Your task to perform on an android device: Search for vegetarian restaurants on Maps Image 0: 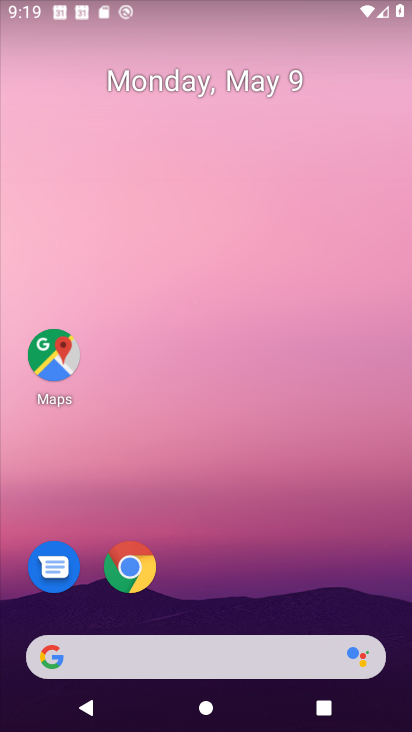
Step 0: click (281, 98)
Your task to perform on an android device: Search for vegetarian restaurants on Maps Image 1: 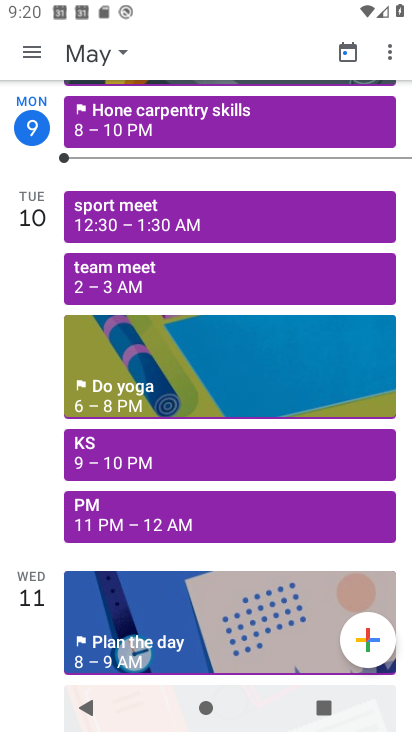
Step 1: press home button
Your task to perform on an android device: Search for vegetarian restaurants on Maps Image 2: 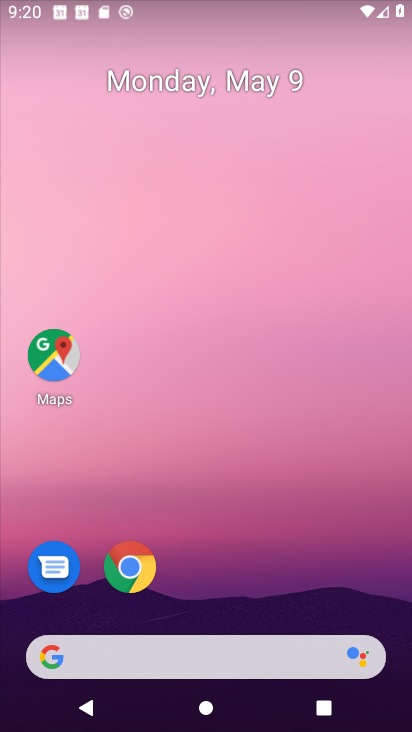
Step 2: drag from (392, 233) to (412, 0)
Your task to perform on an android device: Search for vegetarian restaurants on Maps Image 3: 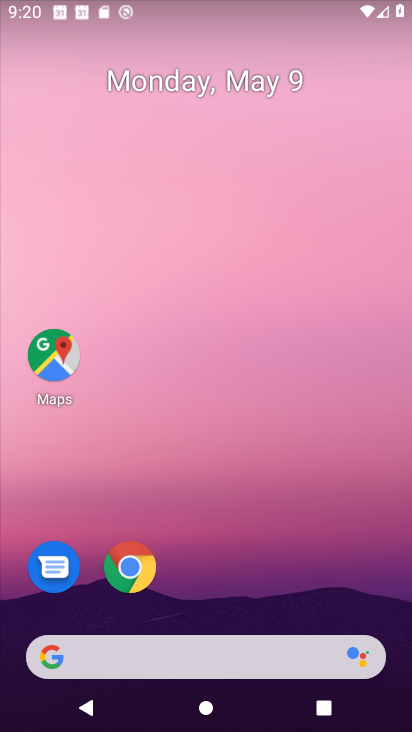
Step 3: drag from (189, 238) to (210, 195)
Your task to perform on an android device: Search for vegetarian restaurants on Maps Image 4: 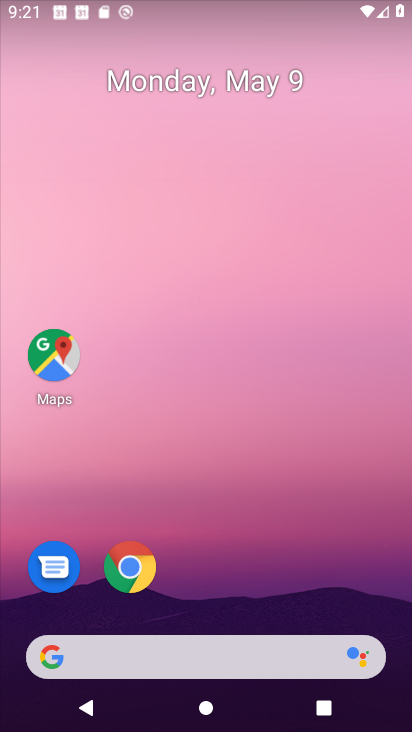
Step 4: drag from (170, 607) to (147, 204)
Your task to perform on an android device: Search for vegetarian restaurants on Maps Image 5: 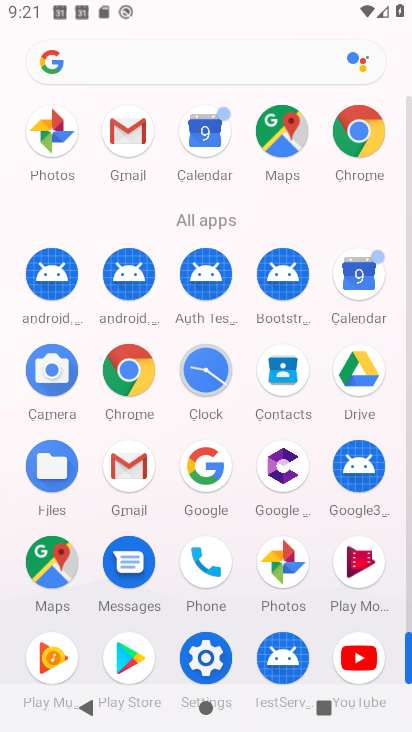
Step 5: click (44, 553)
Your task to perform on an android device: Search for vegetarian restaurants on Maps Image 6: 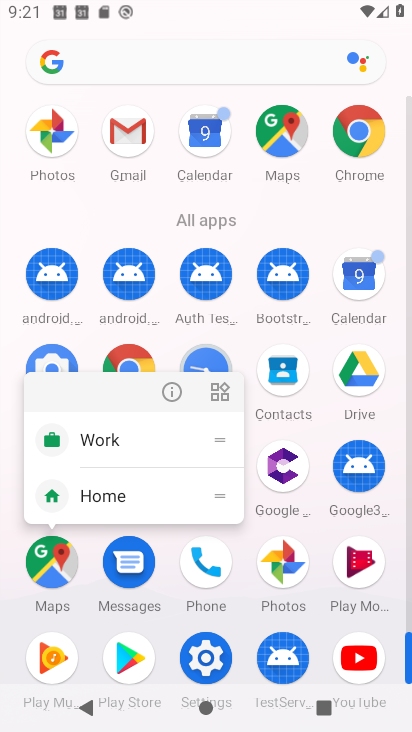
Step 6: click (167, 397)
Your task to perform on an android device: Search for vegetarian restaurants on Maps Image 7: 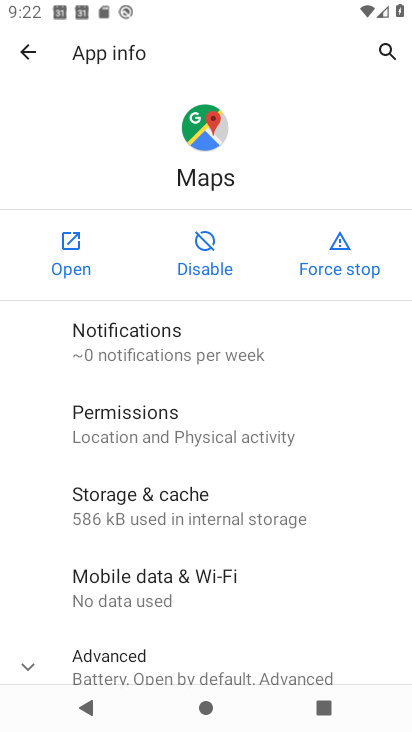
Step 7: click (65, 262)
Your task to perform on an android device: Search for vegetarian restaurants on Maps Image 8: 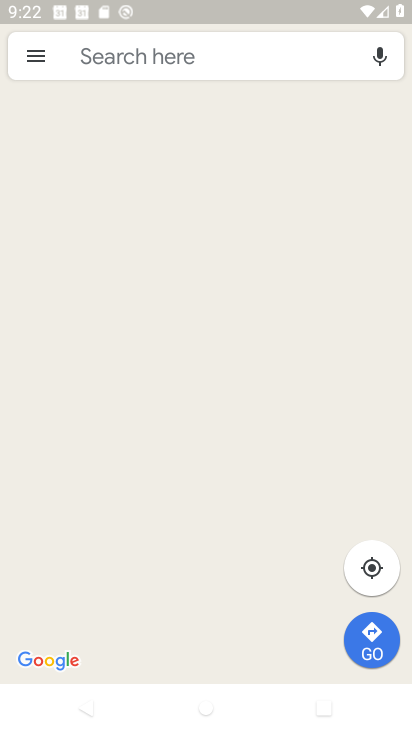
Step 8: click (100, 71)
Your task to perform on an android device: Search for vegetarian restaurants on Maps Image 9: 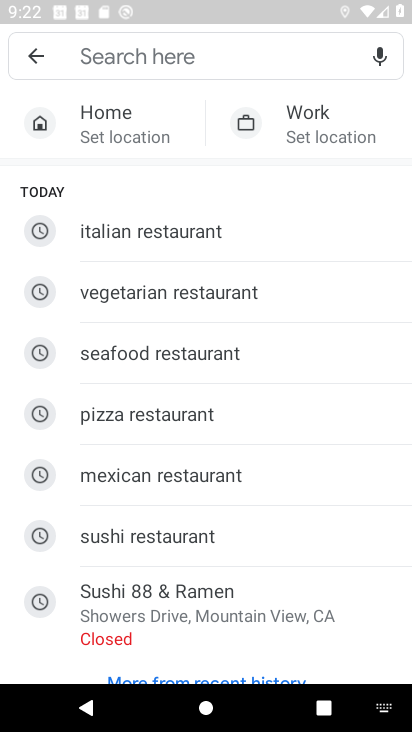
Step 9: type "vegetraian"
Your task to perform on an android device: Search for vegetarian restaurants on Maps Image 10: 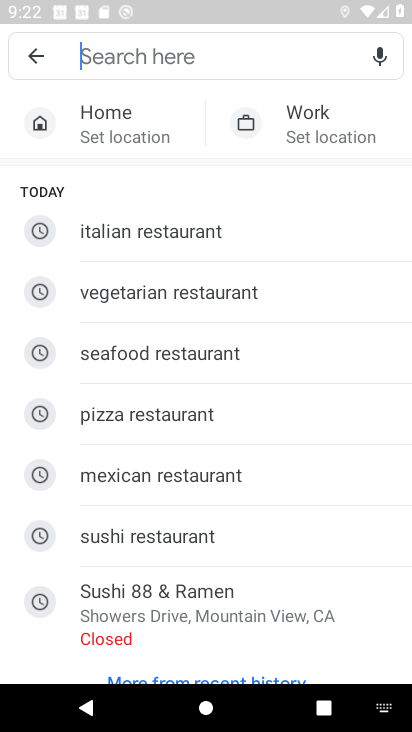
Step 10: click (219, 288)
Your task to perform on an android device: Search for vegetarian restaurants on Maps Image 11: 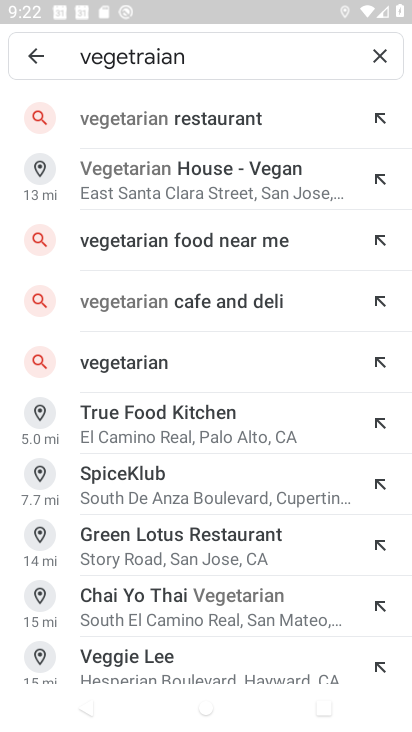
Step 11: click (173, 119)
Your task to perform on an android device: Search for vegetarian restaurants on Maps Image 12: 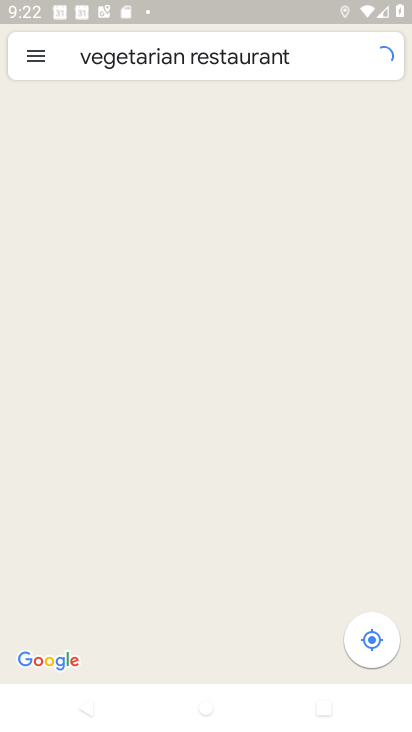
Step 12: task complete